Your task to perform on an android device: turn off notifications settings in the gmail app Image 0: 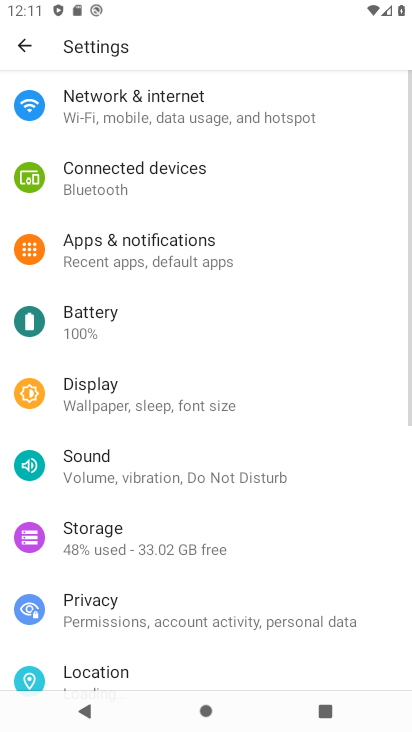
Step 0: press home button
Your task to perform on an android device: turn off notifications settings in the gmail app Image 1: 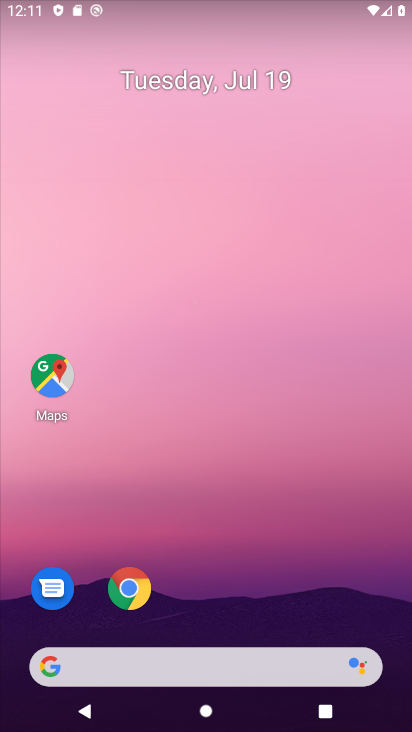
Step 1: drag from (328, 628) to (236, 121)
Your task to perform on an android device: turn off notifications settings in the gmail app Image 2: 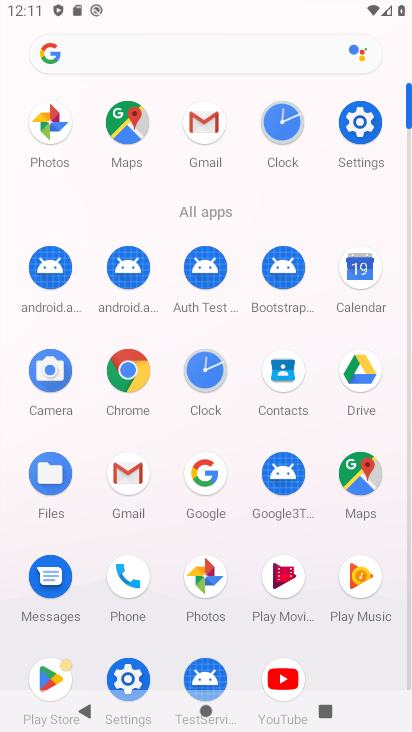
Step 2: click (208, 116)
Your task to perform on an android device: turn off notifications settings in the gmail app Image 3: 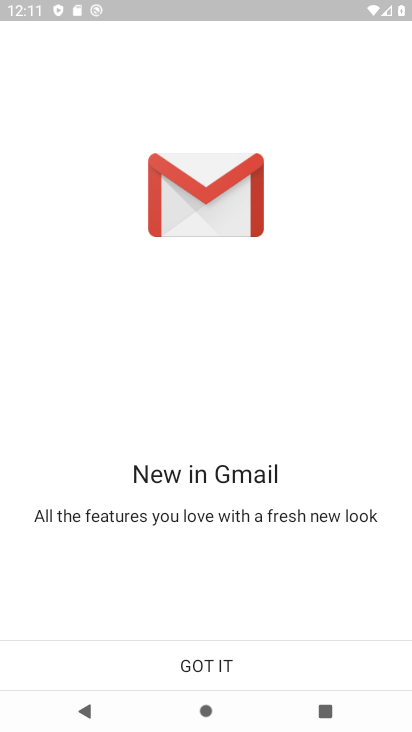
Step 3: click (220, 668)
Your task to perform on an android device: turn off notifications settings in the gmail app Image 4: 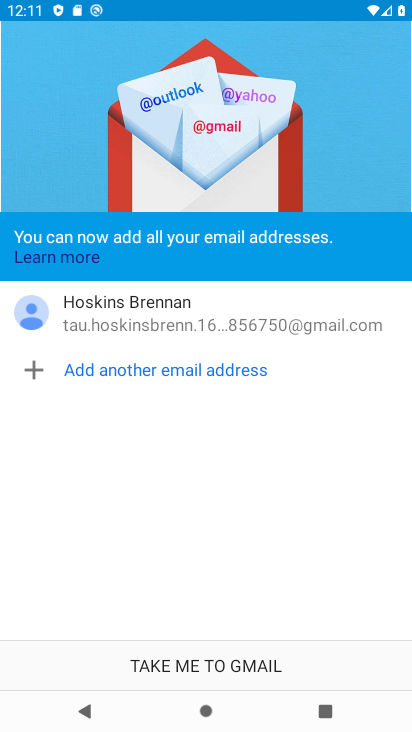
Step 4: click (207, 668)
Your task to perform on an android device: turn off notifications settings in the gmail app Image 5: 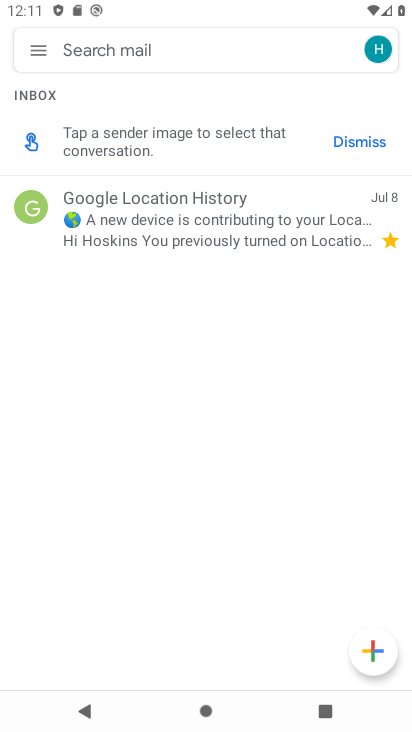
Step 5: click (40, 64)
Your task to perform on an android device: turn off notifications settings in the gmail app Image 6: 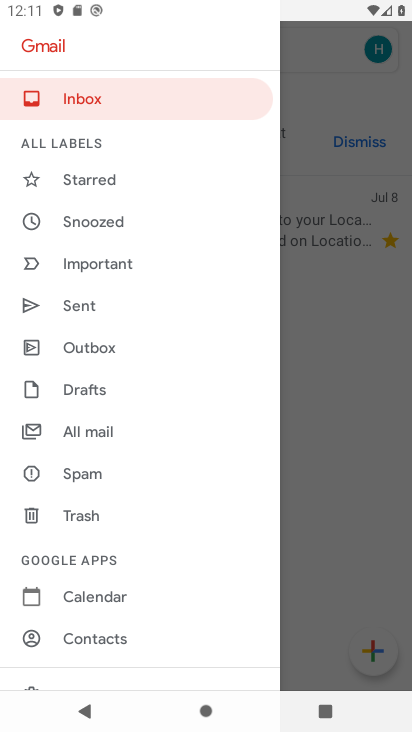
Step 6: drag from (164, 671) to (125, 166)
Your task to perform on an android device: turn off notifications settings in the gmail app Image 7: 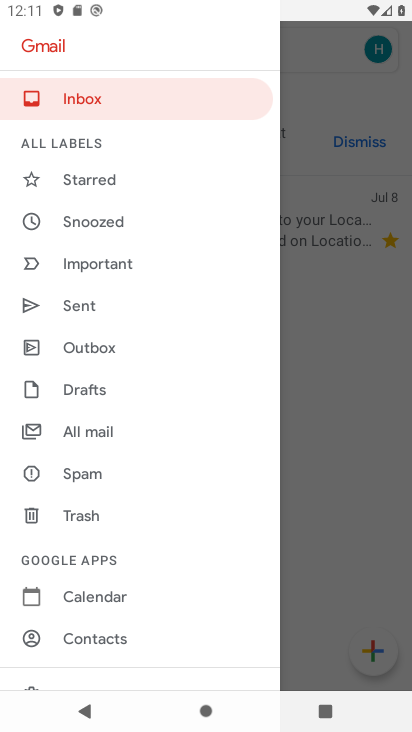
Step 7: drag from (108, 678) to (112, 266)
Your task to perform on an android device: turn off notifications settings in the gmail app Image 8: 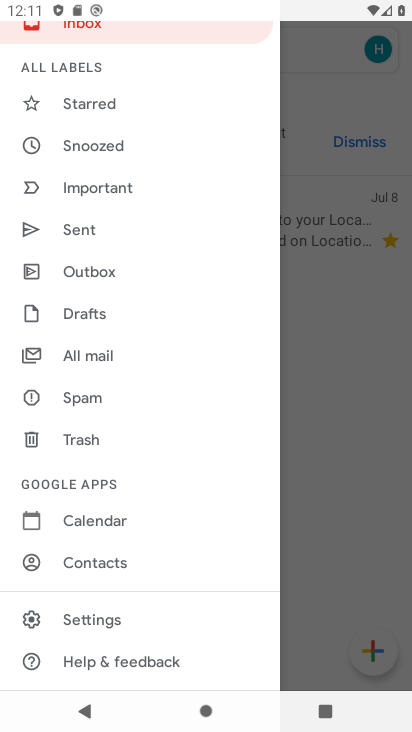
Step 8: click (107, 617)
Your task to perform on an android device: turn off notifications settings in the gmail app Image 9: 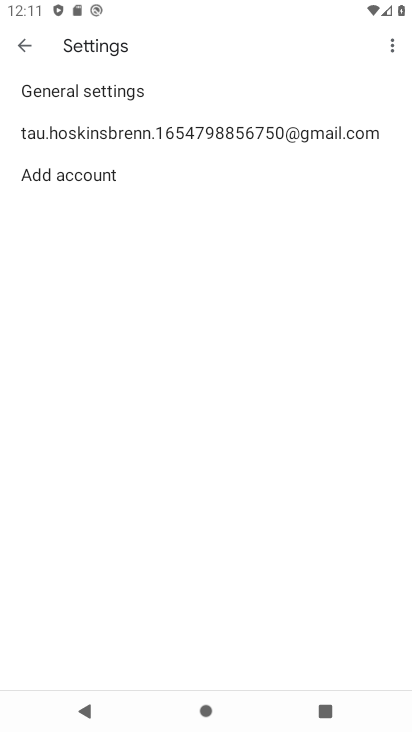
Step 9: click (248, 134)
Your task to perform on an android device: turn off notifications settings in the gmail app Image 10: 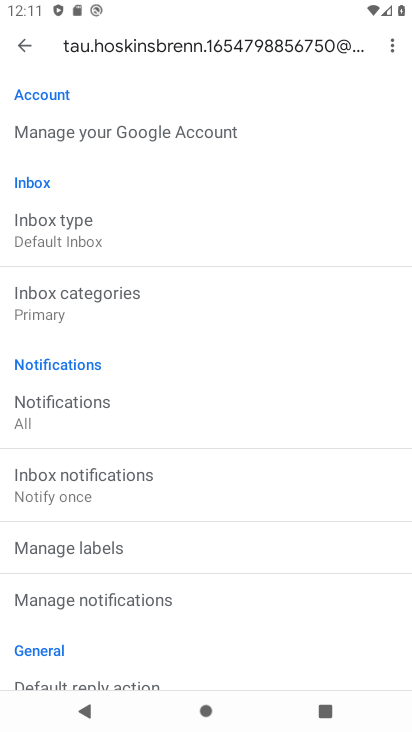
Step 10: click (155, 600)
Your task to perform on an android device: turn off notifications settings in the gmail app Image 11: 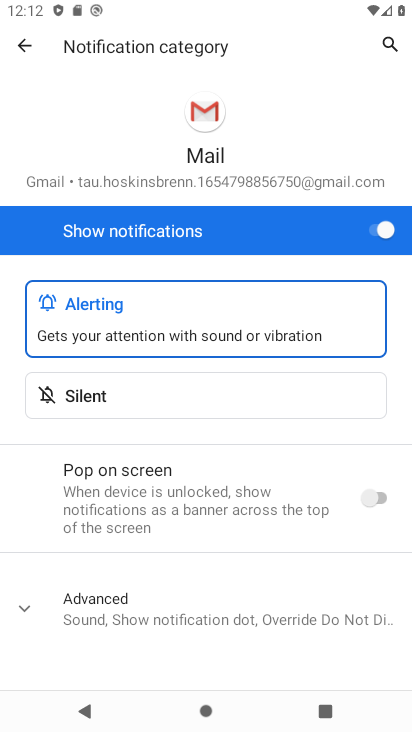
Step 11: click (227, 397)
Your task to perform on an android device: turn off notifications settings in the gmail app Image 12: 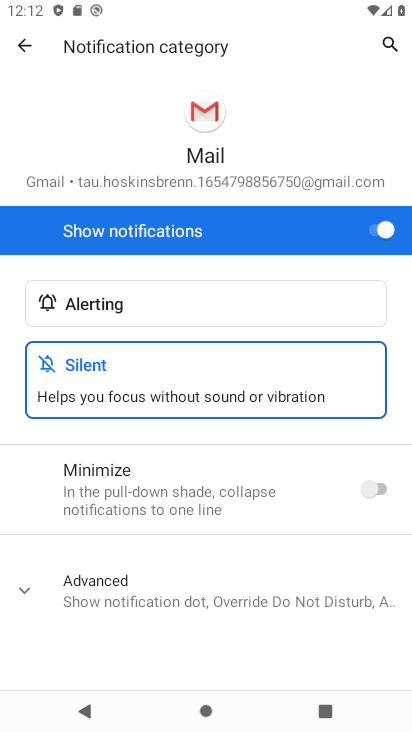
Step 12: task complete